Your task to perform on an android device: open device folders in google photos Image 0: 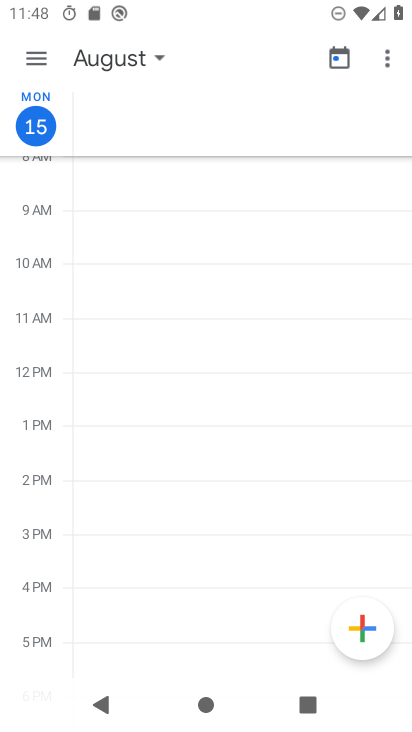
Step 0: press home button
Your task to perform on an android device: open device folders in google photos Image 1: 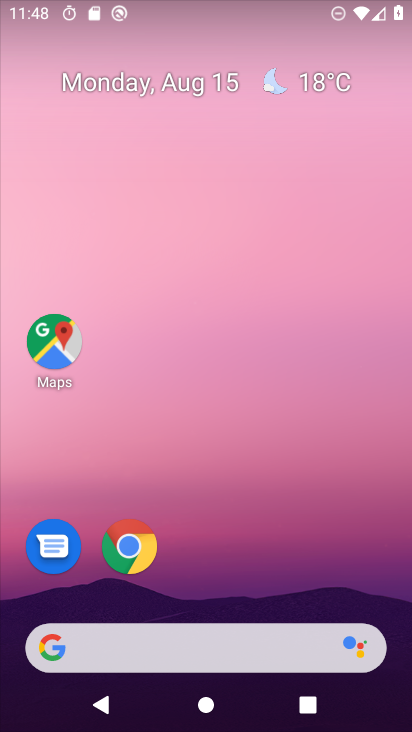
Step 1: drag from (234, 616) to (190, 40)
Your task to perform on an android device: open device folders in google photos Image 2: 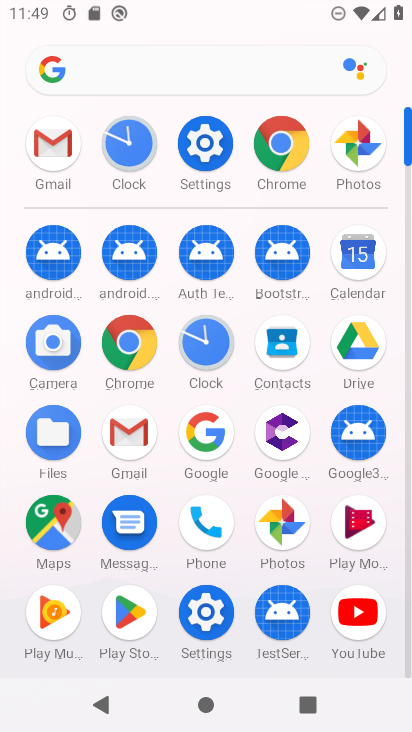
Step 2: click (290, 525)
Your task to perform on an android device: open device folders in google photos Image 3: 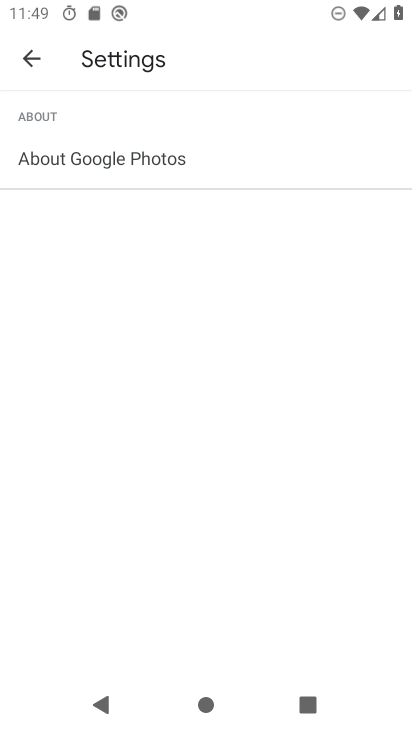
Step 3: click (34, 53)
Your task to perform on an android device: open device folders in google photos Image 4: 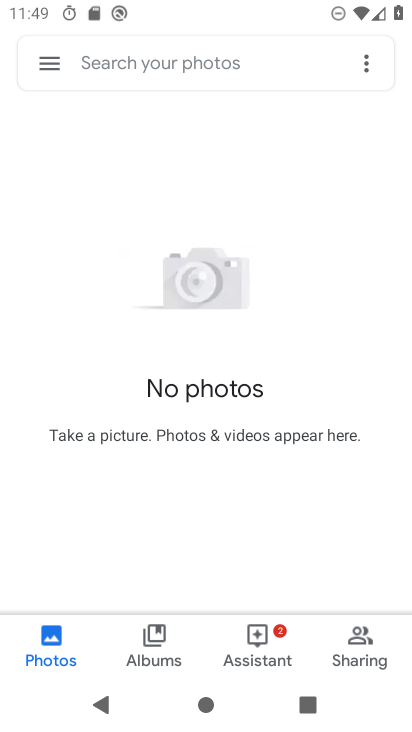
Step 4: click (45, 60)
Your task to perform on an android device: open device folders in google photos Image 5: 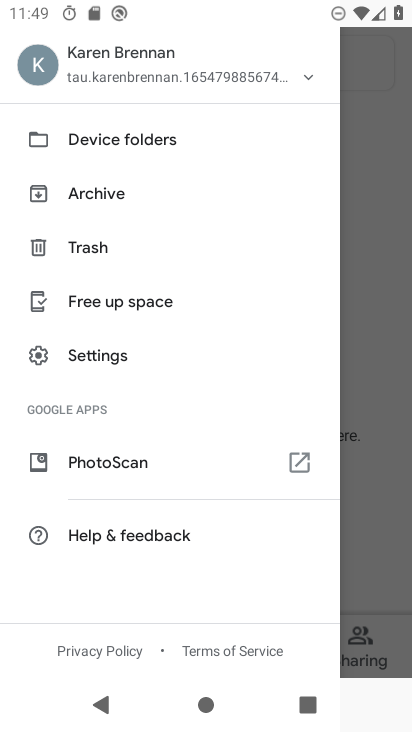
Step 5: click (94, 140)
Your task to perform on an android device: open device folders in google photos Image 6: 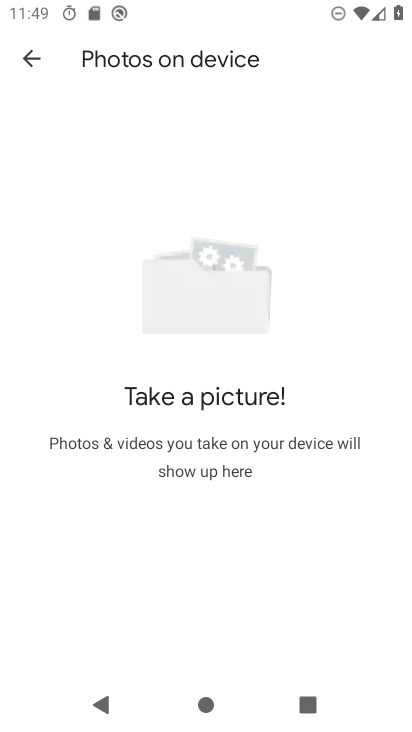
Step 6: task complete